Your task to perform on an android device: Clear all items from cart on ebay. Search for razer kraken on ebay, select the first entry, add it to the cart, then select checkout. Image 0: 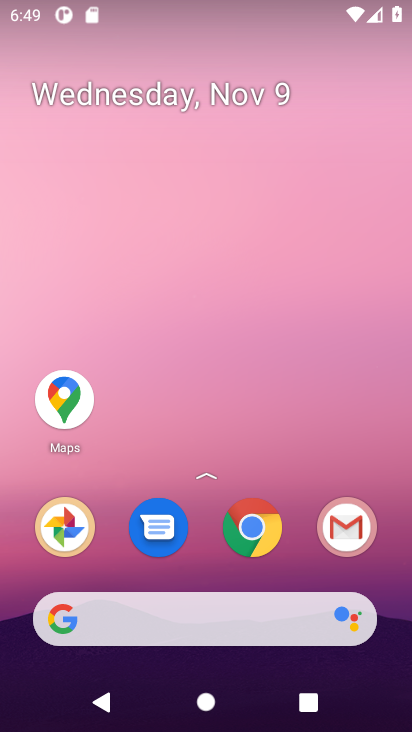
Step 0: press home button
Your task to perform on an android device: Clear all items from cart on ebay. Search for razer kraken on ebay, select the first entry, add it to the cart, then select checkout. Image 1: 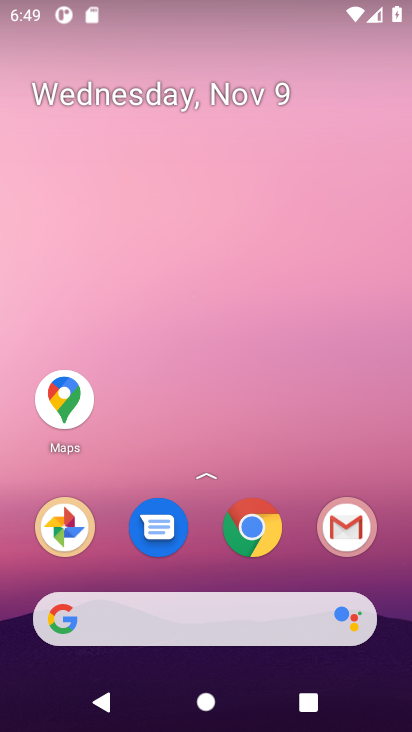
Step 1: drag from (205, 505) to (174, 0)
Your task to perform on an android device: Clear all items from cart on ebay. Search for razer kraken on ebay, select the first entry, add it to the cart, then select checkout. Image 2: 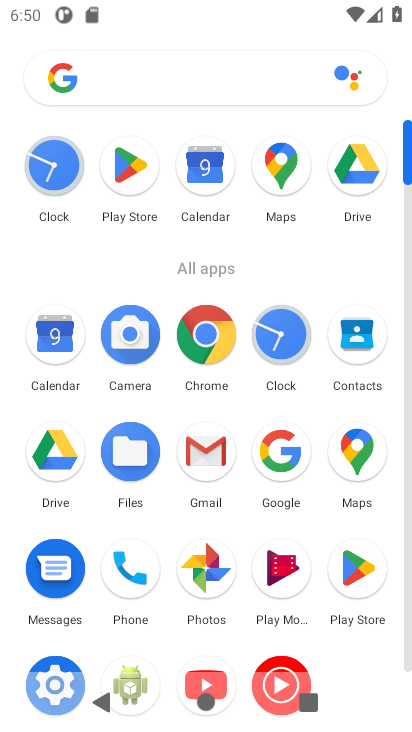
Step 2: click (204, 323)
Your task to perform on an android device: Clear all items from cart on ebay. Search for razer kraken on ebay, select the first entry, add it to the cart, then select checkout. Image 3: 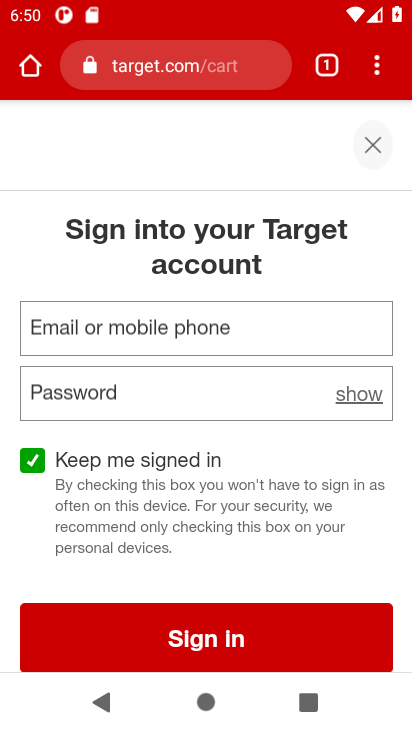
Step 3: click (143, 54)
Your task to perform on an android device: Clear all items from cart on ebay. Search for razer kraken on ebay, select the first entry, add it to the cart, then select checkout. Image 4: 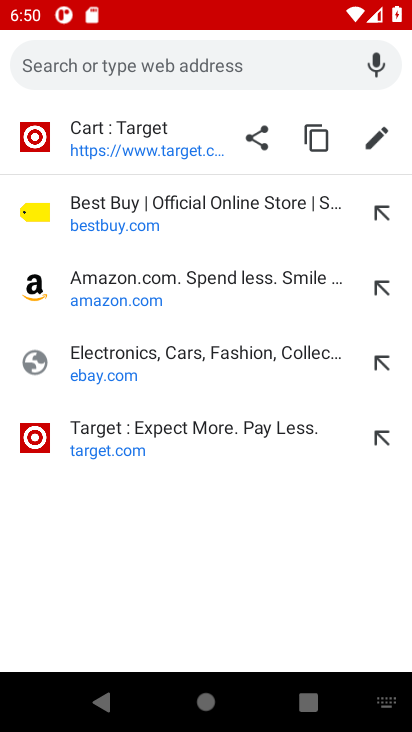
Step 4: type "ebay"
Your task to perform on an android device: Clear all items from cart on ebay. Search for razer kraken on ebay, select the first entry, add it to the cart, then select checkout. Image 5: 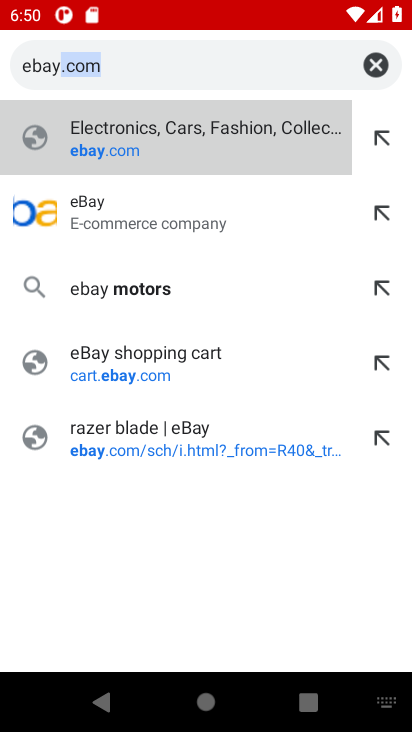
Step 5: click (108, 146)
Your task to perform on an android device: Clear all items from cart on ebay. Search for razer kraken on ebay, select the first entry, add it to the cart, then select checkout. Image 6: 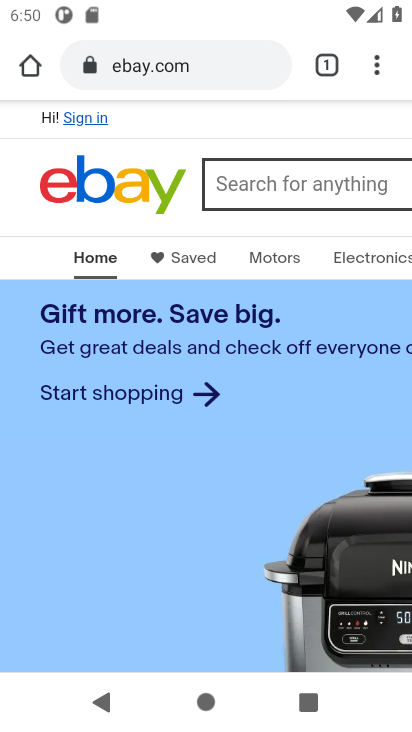
Step 6: click (261, 190)
Your task to perform on an android device: Clear all items from cart on ebay. Search for razer kraken on ebay, select the first entry, add it to the cart, then select checkout. Image 7: 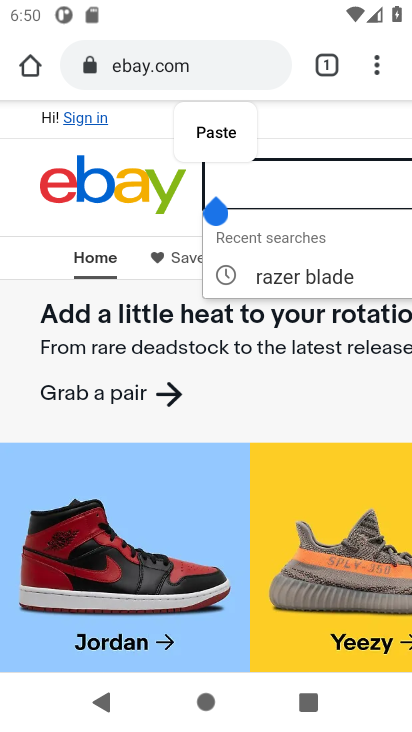
Step 7: type "razer kraken"
Your task to perform on an android device: Clear all items from cart on ebay. Search for razer kraken on ebay, select the first entry, add it to the cart, then select checkout. Image 8: 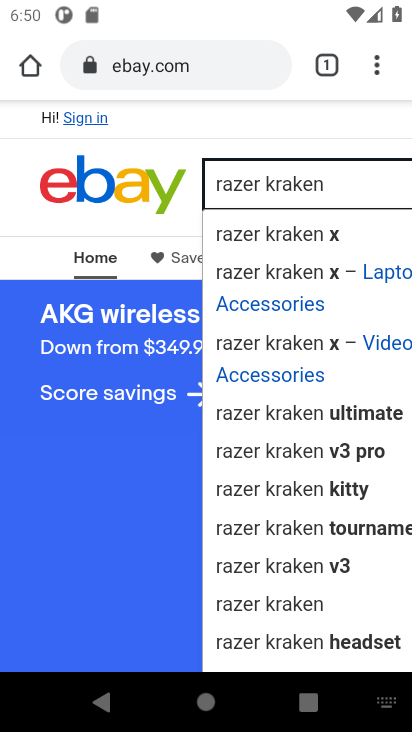
Step 8: type ""
Your task to perform on an android device: Clear all items from cart on ebay. Search for razer kraken on ebay, select the first entry, add it to the cart, then select checkout. Image 9: 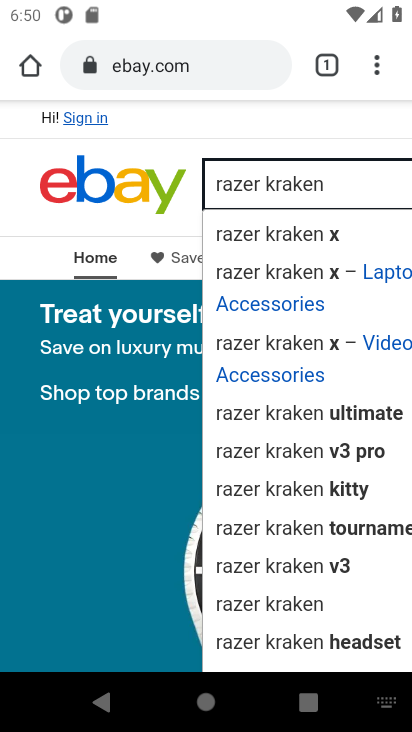
Step 9: click (278, 280)
Your task to perform on an android device: Clear all items from cart on ebay. Search for razer kraken on ebay, select the first entry, add it to the cart, then select checkout. Image 10: 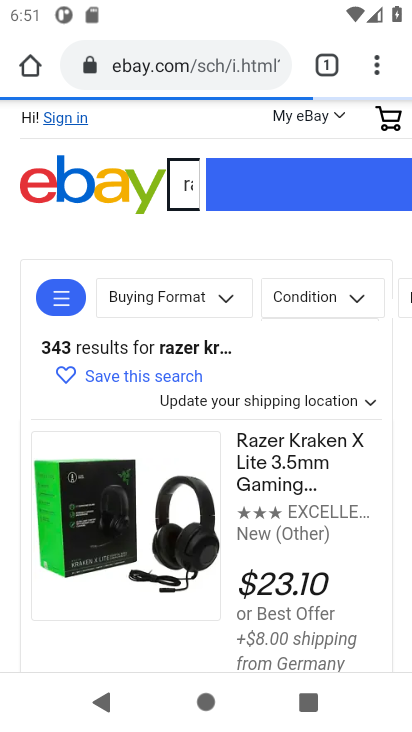
Step 10: click (268, 451)
Your task to perform on an android device: Clear all items from cart on ebay. Search for razer kraken on ebay, select the first entry, add it to the cart, then select checkout. Image 11: 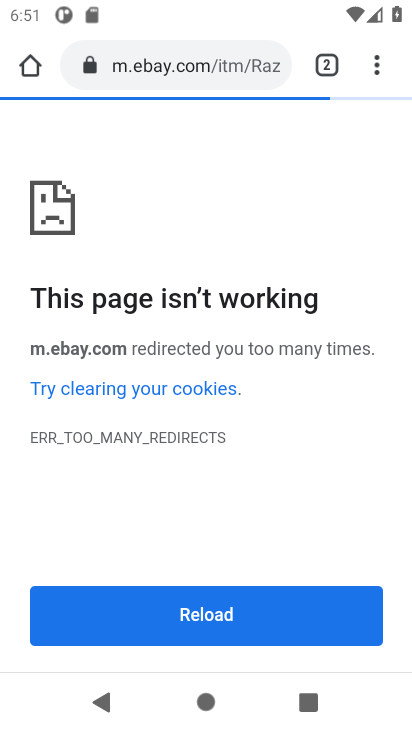
Step 11: press back button
Your task to perform on an android device: Clear all items from cart on ebay. Search for razer kraken on ebay, select the first entry, add it to the cart, then select checkout. Image 12: 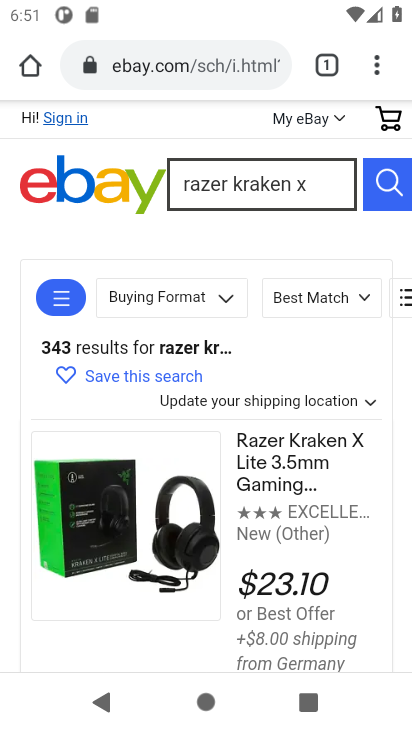
Step 12: drag from (211, 635) to (174, 209)
Your task to perform on an android device: Clear all items from cart on ebay. Search for razer kraken on ebay, select the first entry, add it to the cart, then select checkout. Image 13: 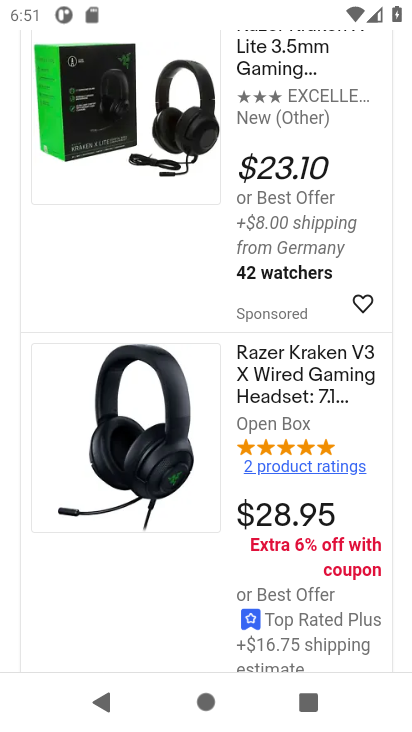
Step 13: click (282, 369)
Your task to perform on an android device: Clear all items from cart on ebay. Search for razer kraken on ebay, select the first entry, add it to the cart, then select checkout. Image 14: 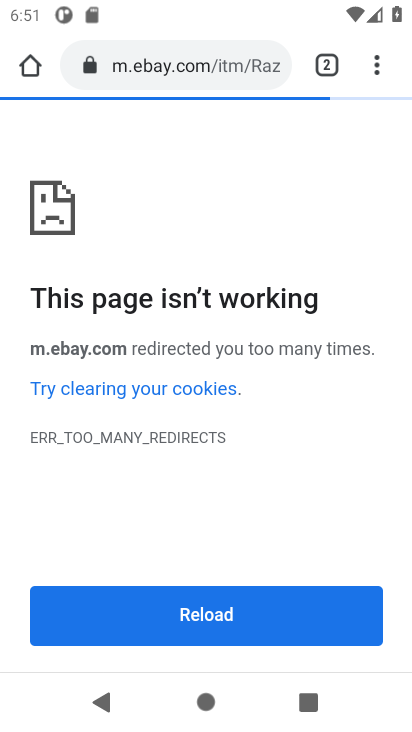
Step 14: press back button
Your task to perform on an android device: Clear all items from cart on ebay. Search for razer kraken on ebay, select the first entry, add it to the cart, then select checkout. Image 15: 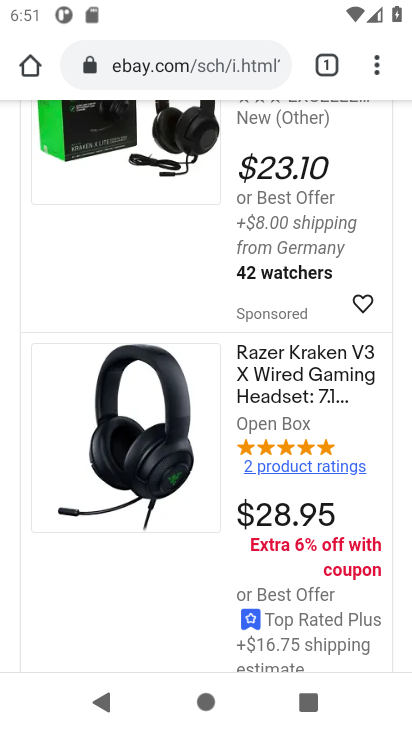
Step 15: drag from (213, 612) to (205, 96)
Your task to perform on an android device: Clear all items from cart on ebay. Search for razer kraken on ebay, select the first entry, add it to the cart, then select checkout. Image 16: 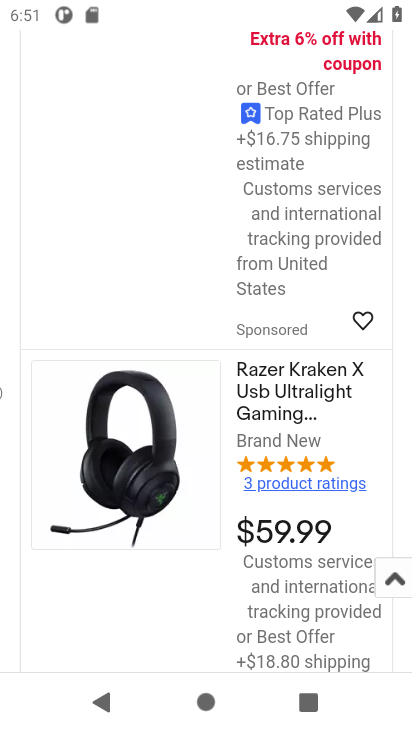
Step 16: click (280, 384)
Your task to perform on an android device: Clear all items from cart on ebay. Search for razer kraken on ebay, select the first entry, add it to the cart, then select checkout. Image 17: 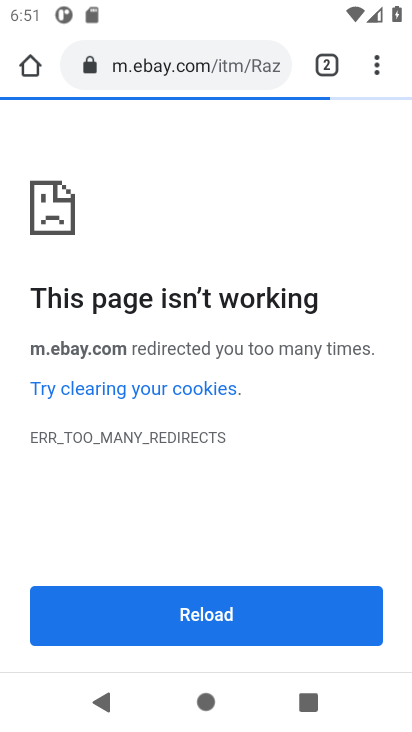
Step 17: press back button
Your task to perform on an android device: Clear all items from cart on ebay. Search for razer kraken on ebay, select the first entry, add it to the cart, then select checkout. Image 18: 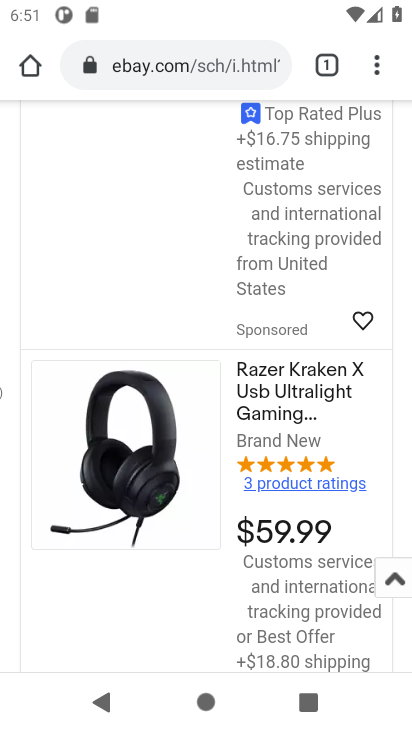
Step 18: drag from (198, 605) to (187, 109)
Your task to perform on an android device: Clear all items from cart on ebay. Search for razer kraken on ebay, select the first entry, add it to the cart, then select checkout. Image 19: 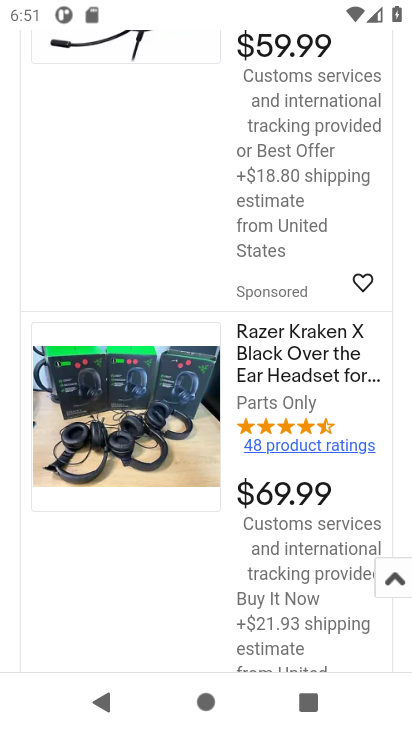
Step 19: click (305, 358)
Your task to perform on an android device: Clear all items from cart on ebay. Search for razer kraken on ebay, select the first entry, add it to the cart, then select checkout. Image 20: 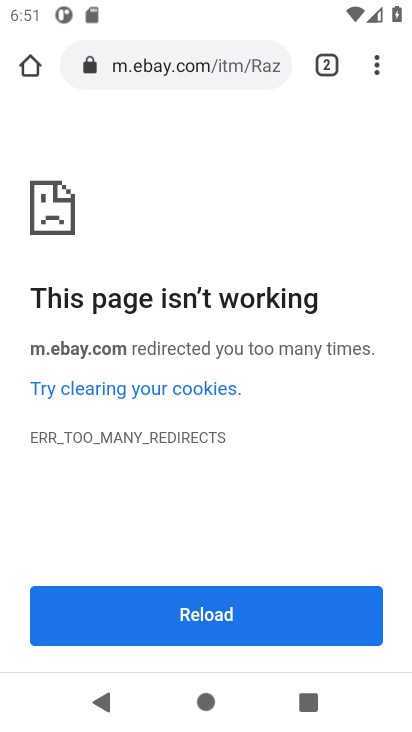
Step 20: task complete